Your task to perform on an android device: Find coffee shops on Maps Image 0: 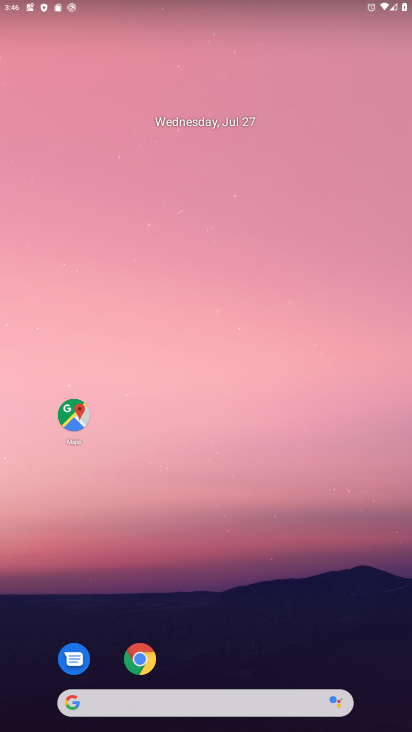
Step 0: click (62, 410)
Your task to perform on an android device: Find coffee shops on Maps Image 1: 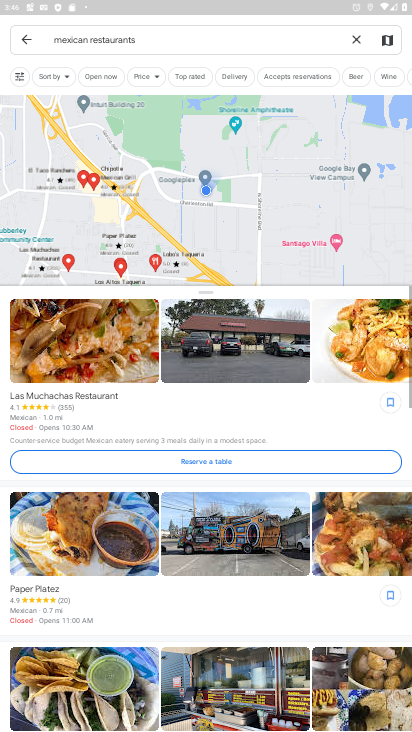
Step 1: click (208, 42)
Your task to perform on an android device: Find coffee shops on Maps Image 2: 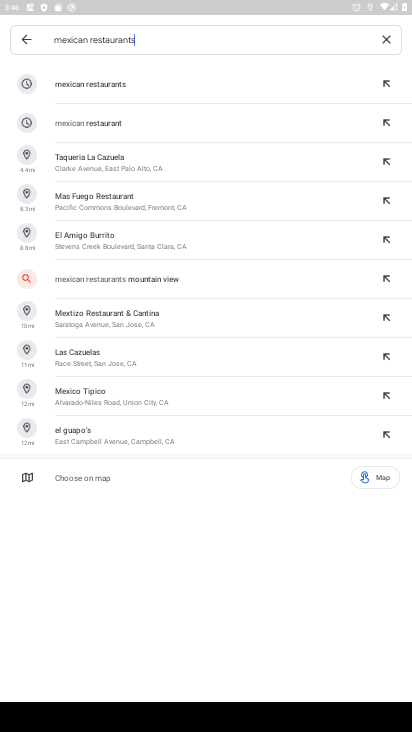
Step 2: click (390, 40)
Your task to perform on an android device: Find coffee shops on Maps Image 3: 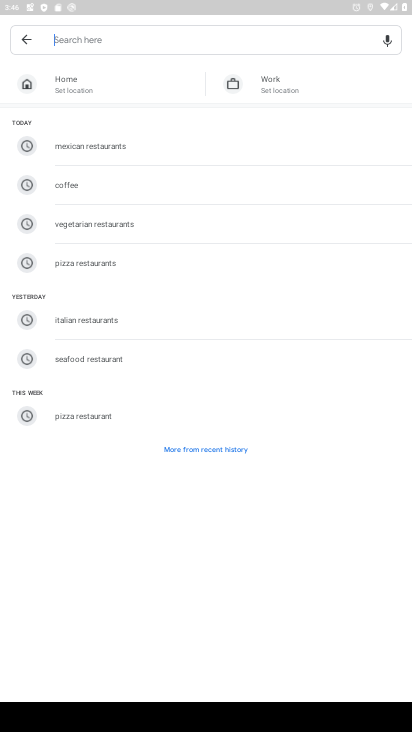
Step 3: type "coffee shops"
Your task to perform on an android device: Find coffee shops on Maps Image 4: 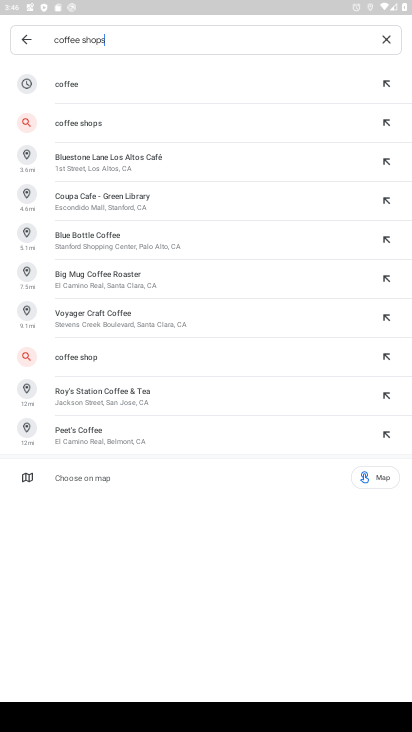
Step 4: click (153, 123)
Your task to perform on an android device: Find coffee shops on Maps Image 5: 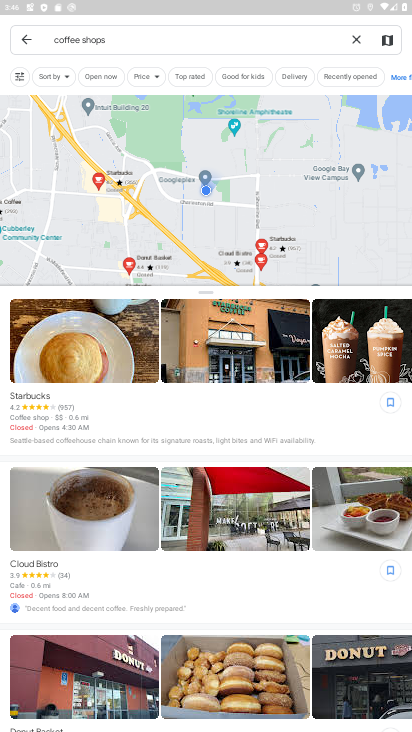
Step 5: task complete